Your task to perform on an android device: Open Youtube and go to "Your channel" Image 0: 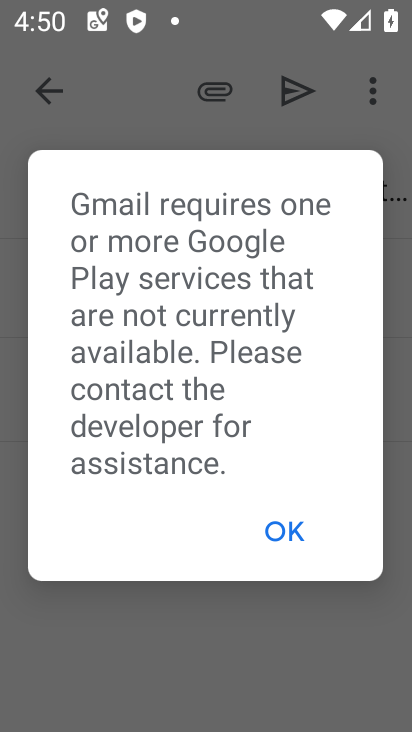
Step 0: click (283, 541)
Your task to perform on an android device: Open Youtube and go to "Your channel" Image 1: 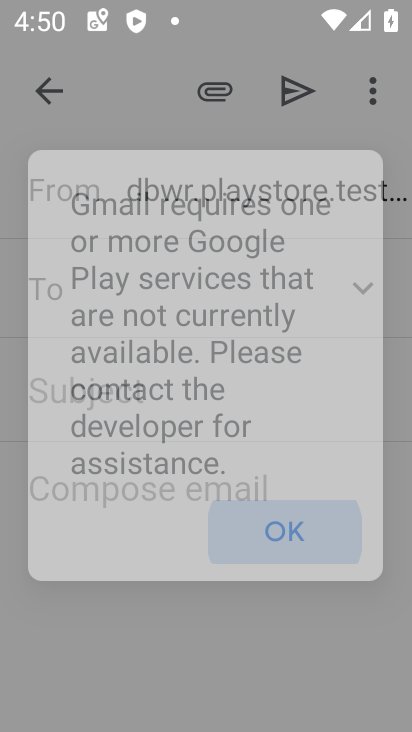
Step 1: click (283, 541)
Your task to perform on an android device: Open Youtube and go to "Your channel" Image 2: 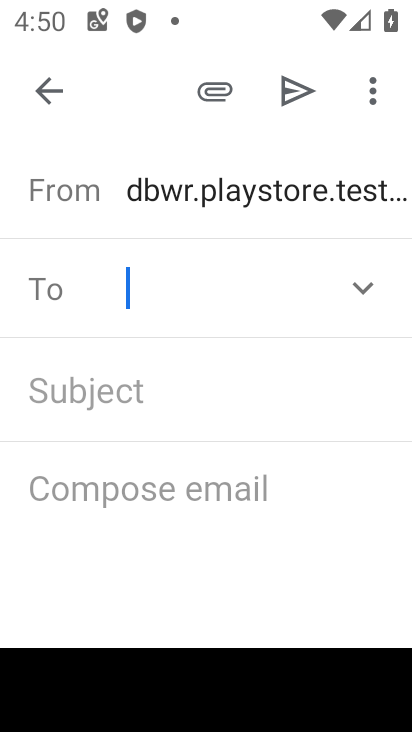
Step 2: click (283, 541)
Your task to perform on an android device: Open Youtube and go to "Your channel" Image 3: 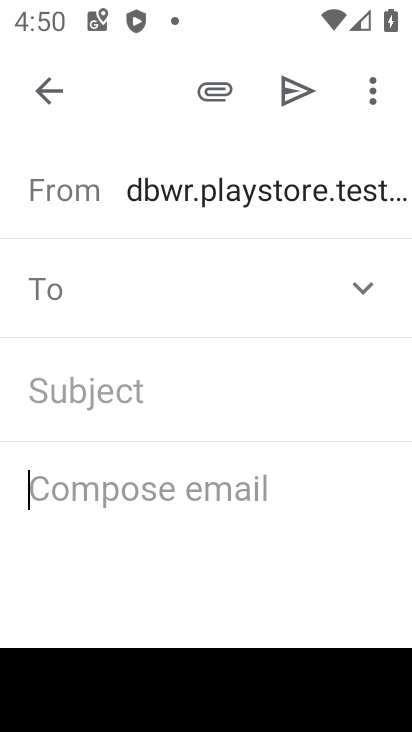
Step 3: click (283, 541)
Your task to perform on an android device: Open Youtube and go to "Your channel" Image 4: 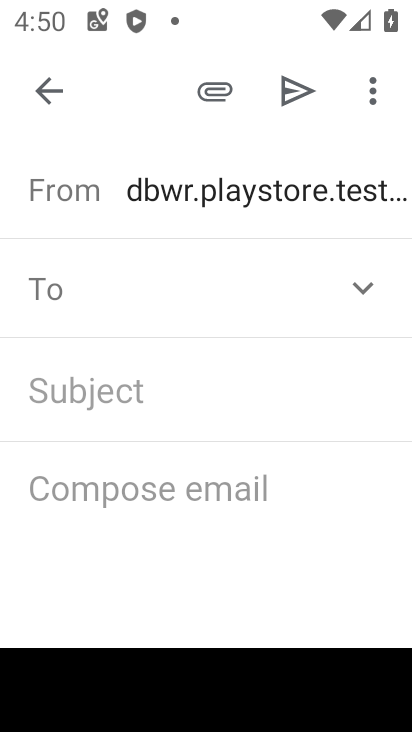
Step 4: click (45, 99)
Your task to perform on an android device: Open Youtube and go to "Your channel" Image 5: 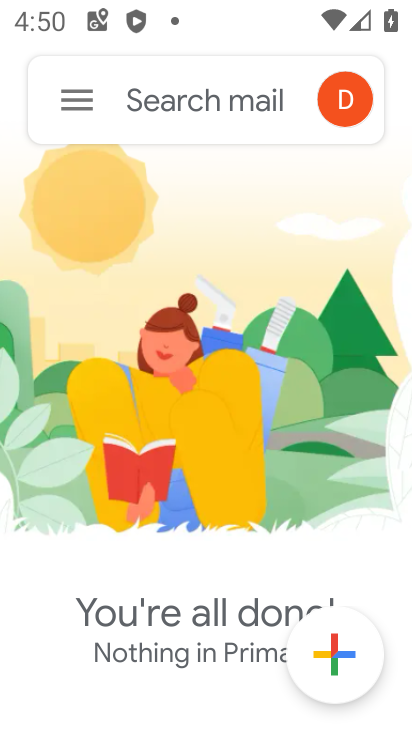
Step 5: press back button
Your task to perform on an android device: Open Youtube and go to "Your channel" Image 6: 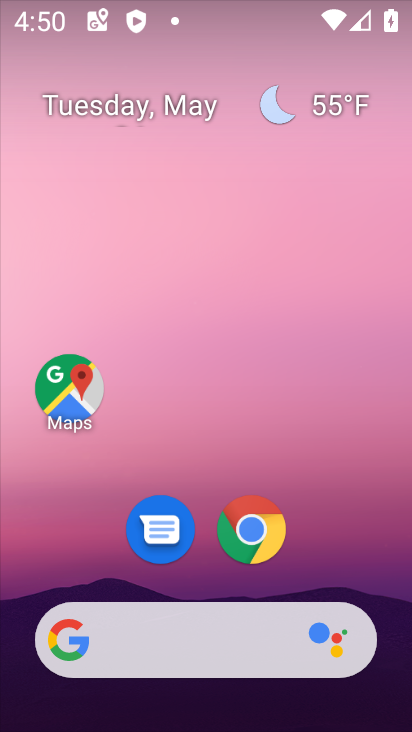
Step 6: drag from (305, 601) to (141, 81)
Your task to perform on an android device: Open Youtube and go to "Your channel" Image 7: 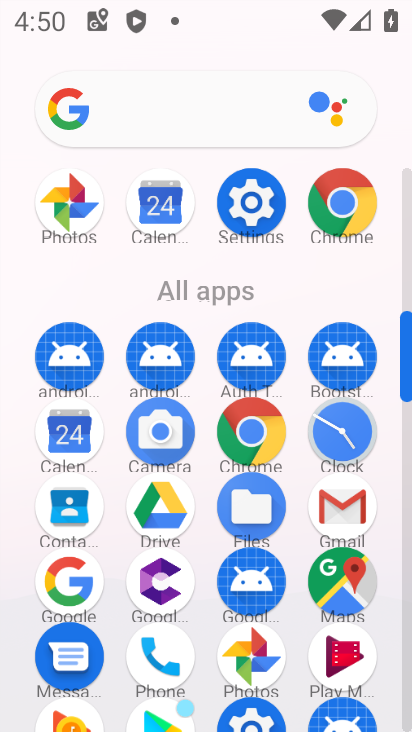
Step 7: drag from (288, 576) to (308, 261)
Your task to perform on an android device: Open Youtube and go to "Your channel" Image 8: 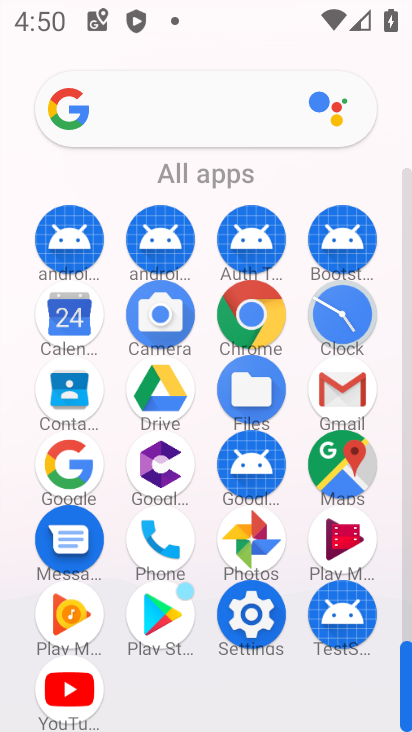
Step 8: drag from (349, 543) to (69, 692)
Your task to perform on an android device: Open Youtube and go to "Your channel" Image 9: 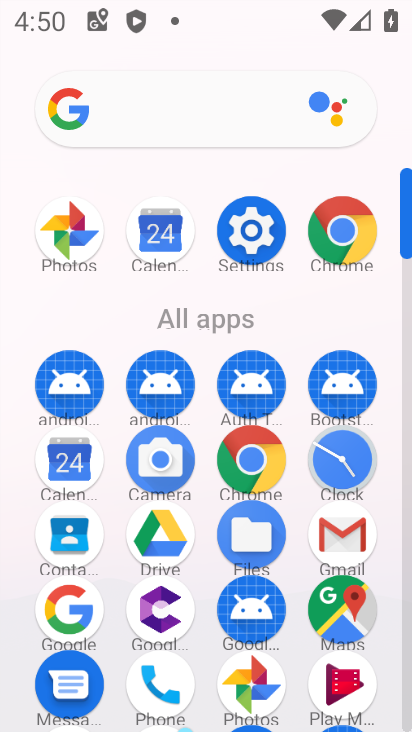
Step 9: click (69, 692)
Your task to perform on an android device: Open Youtube and go to "Your channel" Image 10: 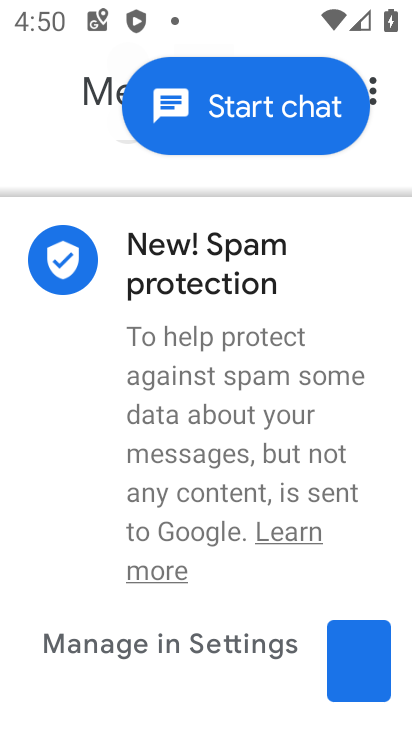
Step 10: task complete